Your task to perform on an android device: open app "PlayWell" (install if not already installed) and enter user name: "metric@gmail.com" and password: "bumblebee" Image 0: 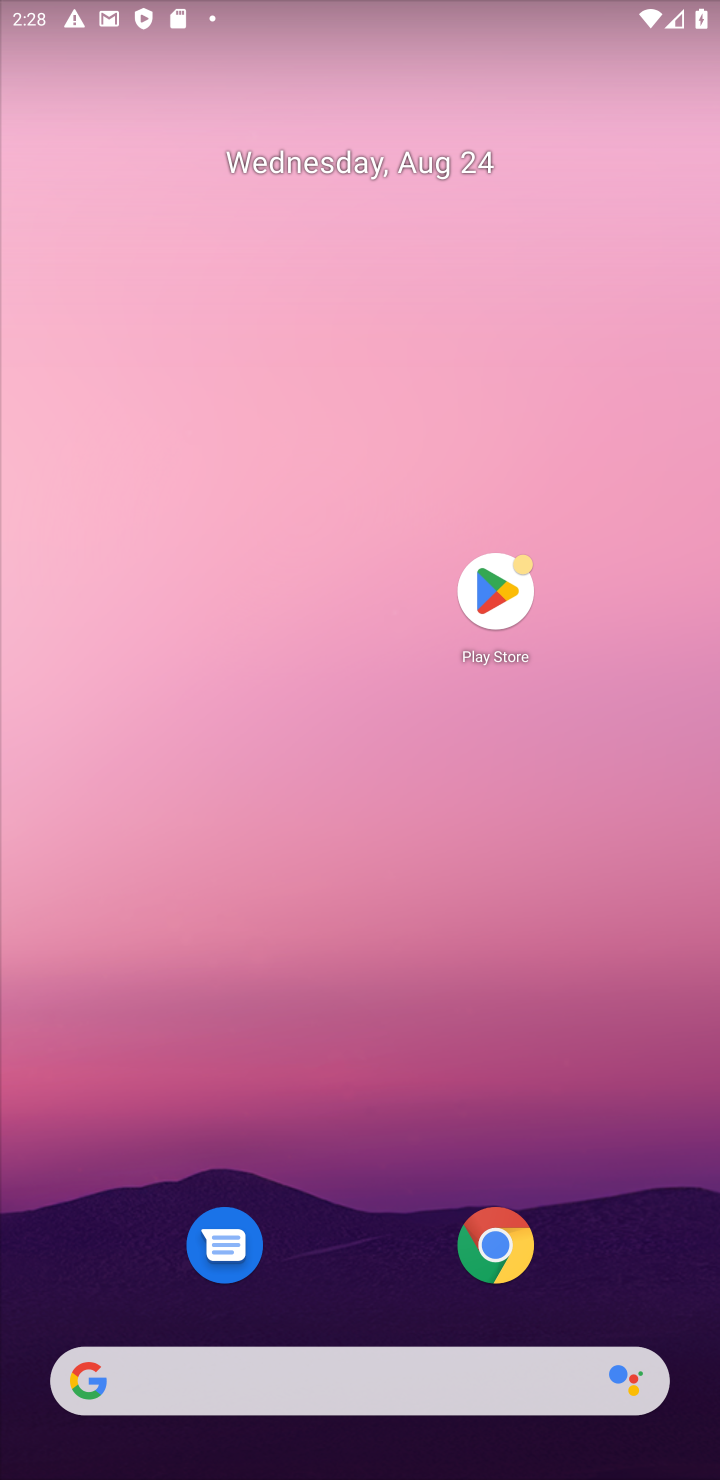
Step 0: click (501, 612)
Your task to perform on an android device: open app "PlayWell" (install if not already installed) and enter user name: "metric@gmail.com" and password: "bumblebee" Image 1: 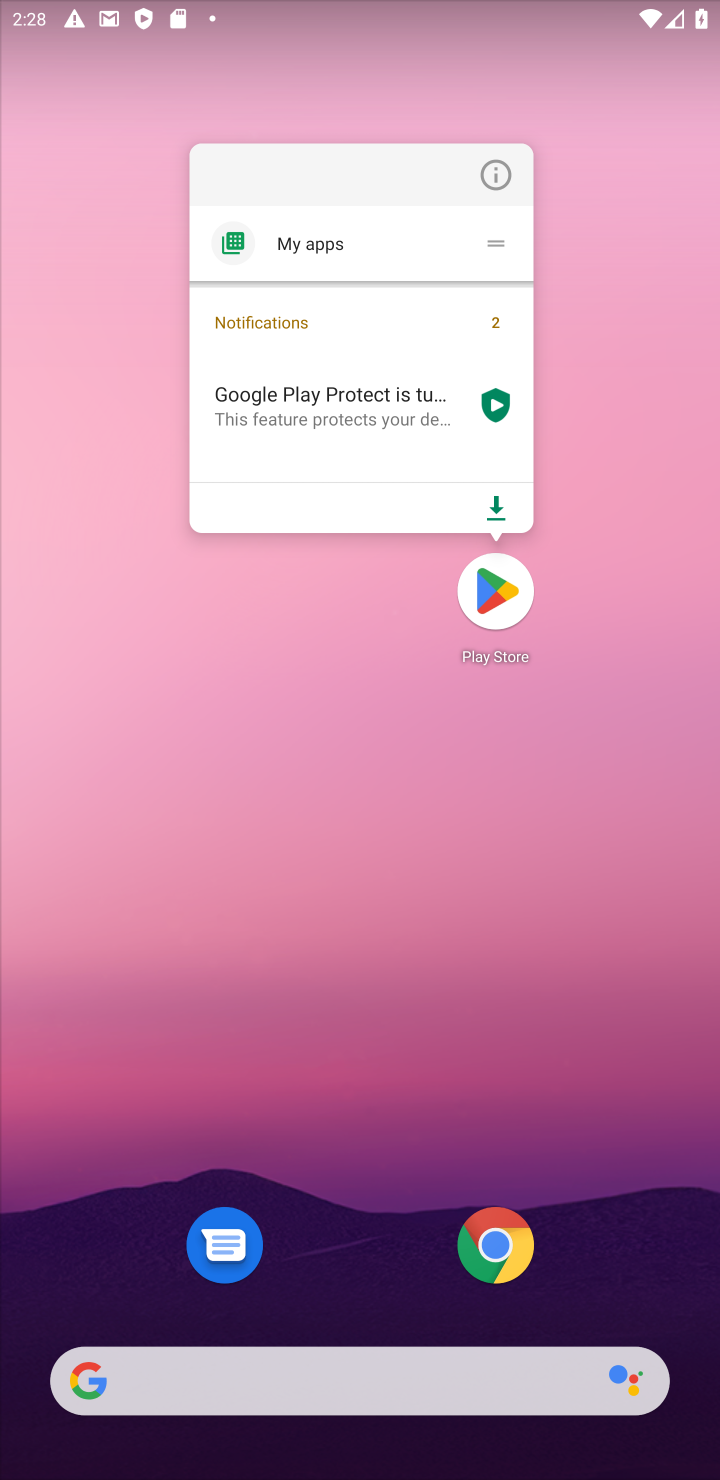
Step 1: click (505, 588)
Your task to perform on an android device: open app "PlayWell" (install if not already installed) and enter user name: "metric@gmail.com" and password: "bumblebee" Image 2: 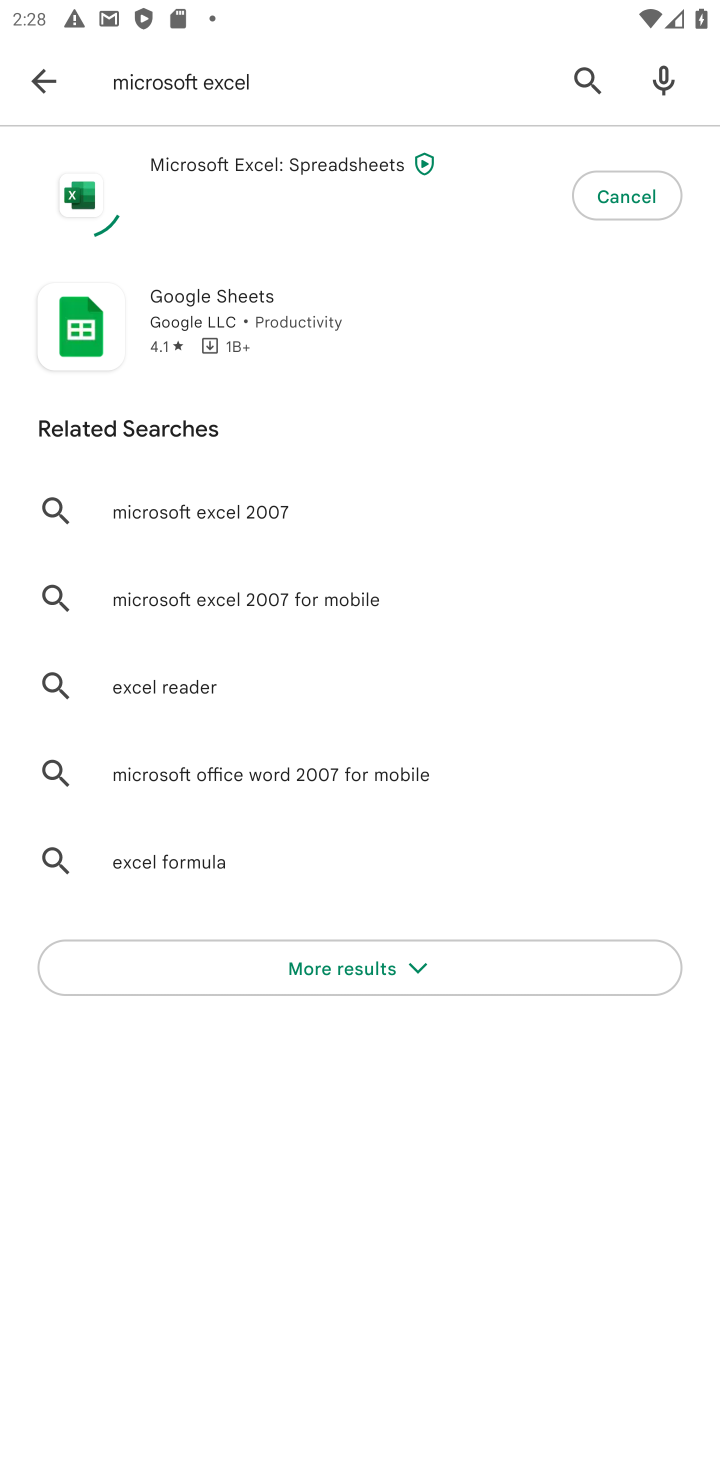
Step 2: click (572, 82)
Your task to perform on an android device: open app "PlayWell" (install if not already installed) and enter user name: "metric@gmail.com" and password: "bumblebee" Image 3: 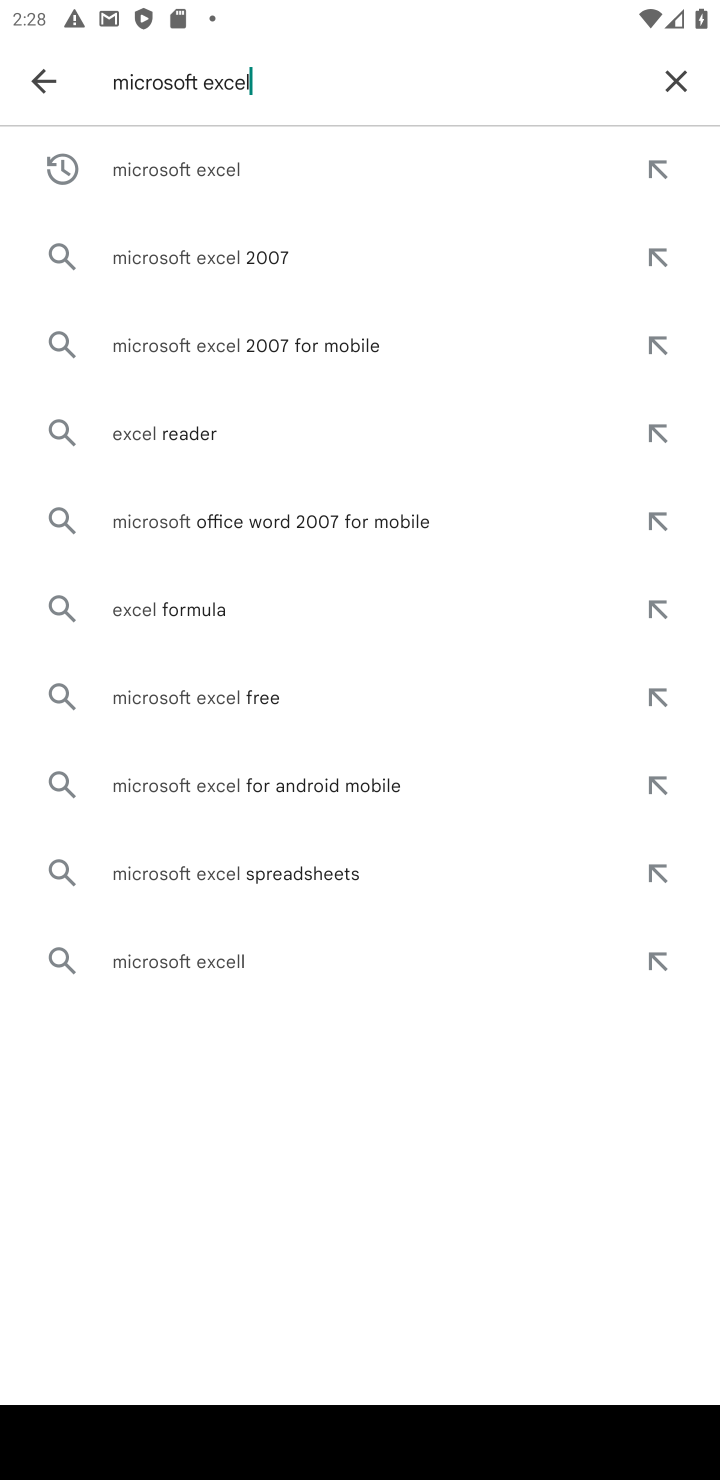
Step 3: click (663, 71)
Your task to perform on an android device: open app "PlayWell" (install if not already installed) and enter user name: "metric@gmail.com" and password: "bumblebee" Image 4: 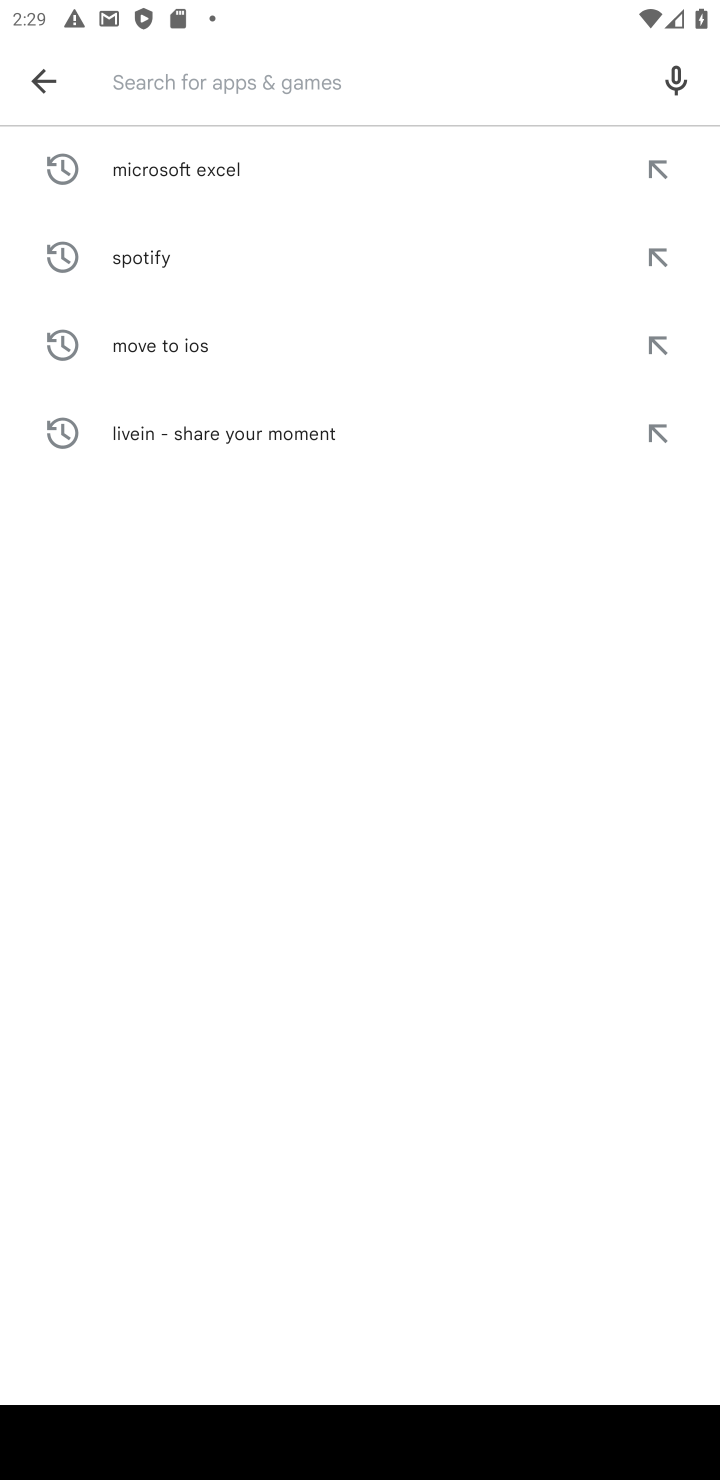
Step 4: type "PlayWell"
Your task to perform on an android device: open app "PlayWell" (install if not already installed) and enter user name: "metric@gmail.com" and password: "bumblebee" Image 5: 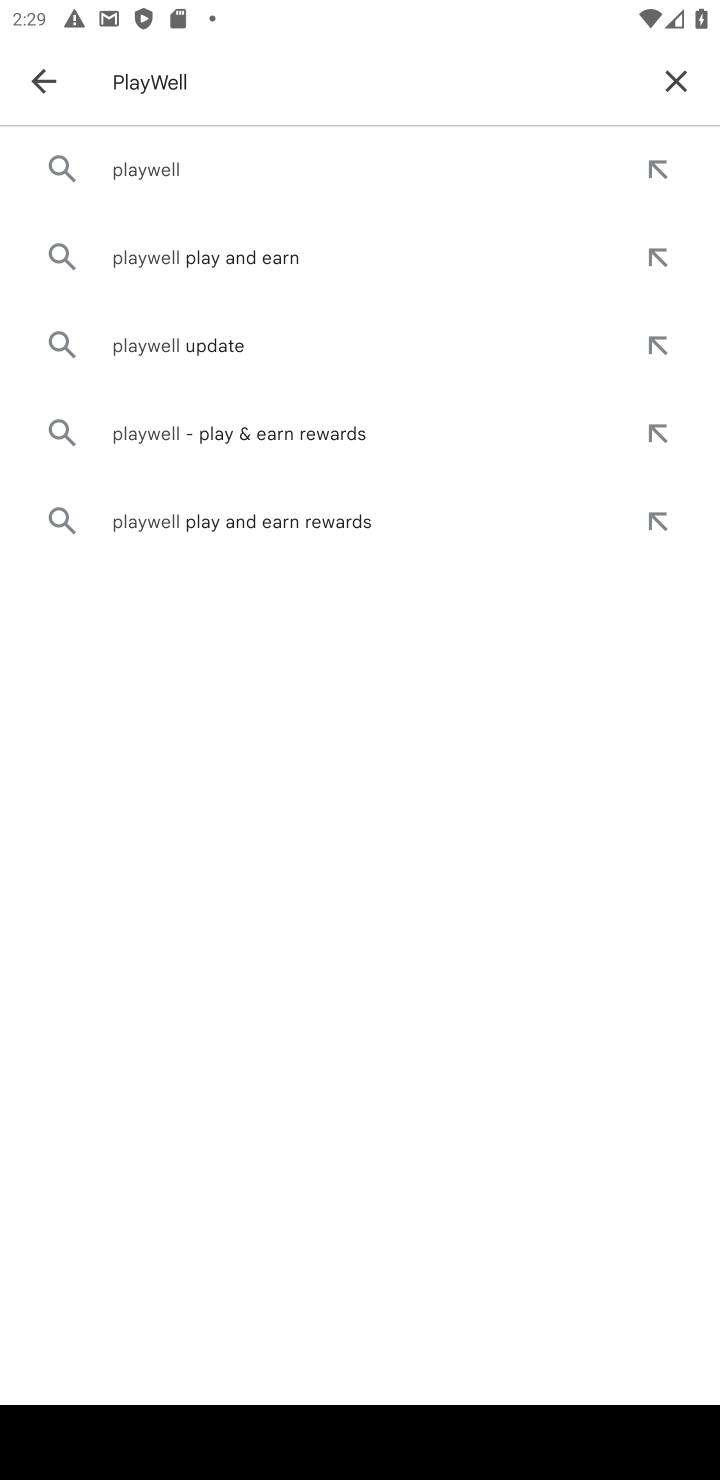
Step 5: click (156, 170)
Your task to perform on an android device: open app "PlayWell" (install if not already installed) and enter user name: "metric@gmail.com" and password: "bumblebee" Image 6: 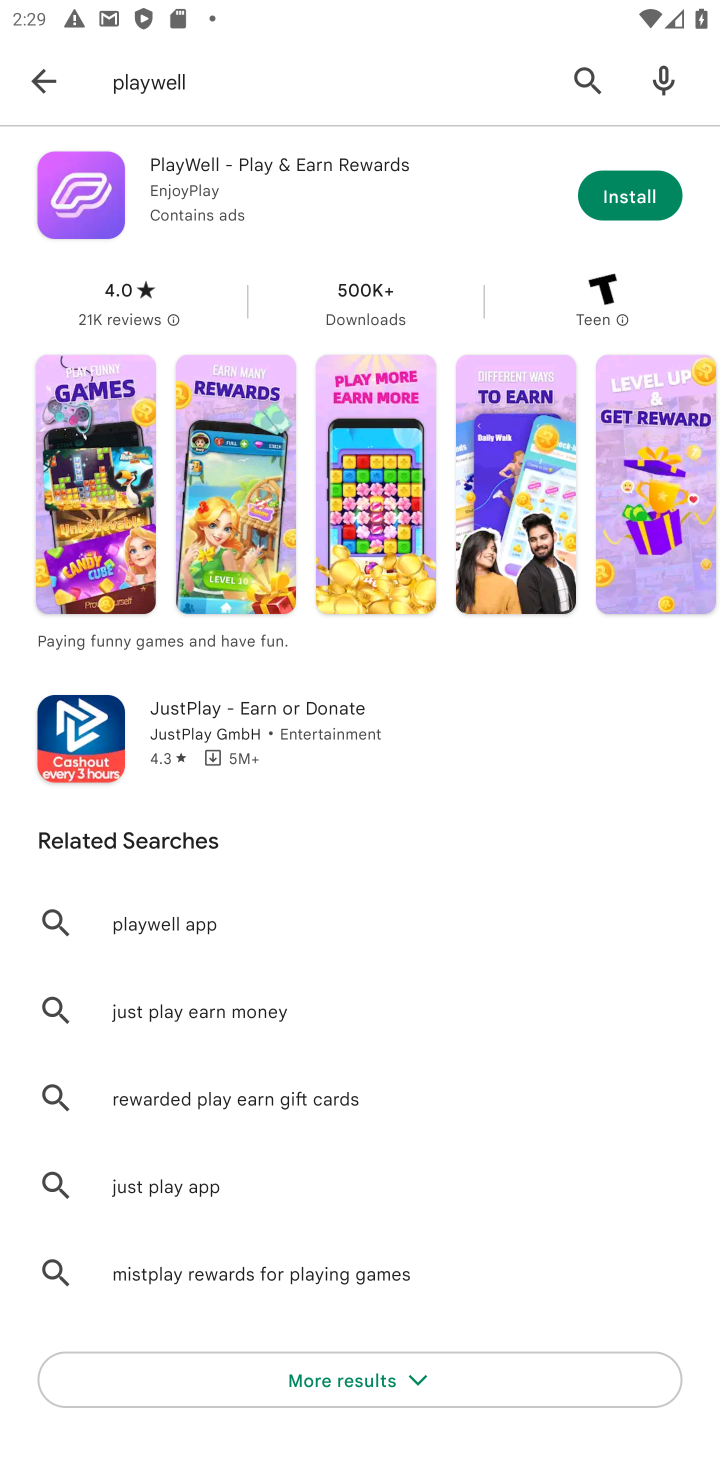
Step 6: click (623, 198)
Your task to perform on an android device: open app "PlayWell" (install if not already installed) and enter user name: "metric@gmail.com" and password: "bumblebee" Image 7: 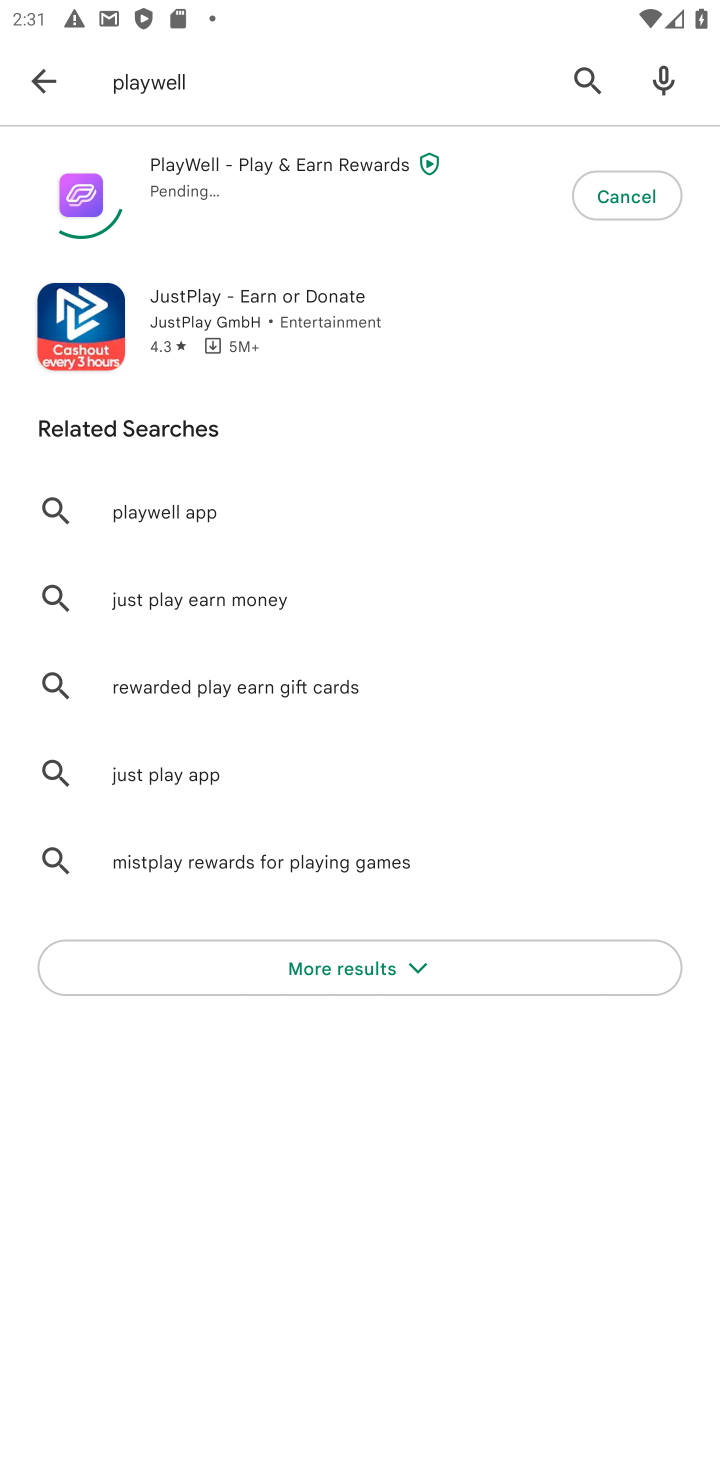
Step 7: task complete